Your task to perform on an android device: turn on airplane mode Image 0: 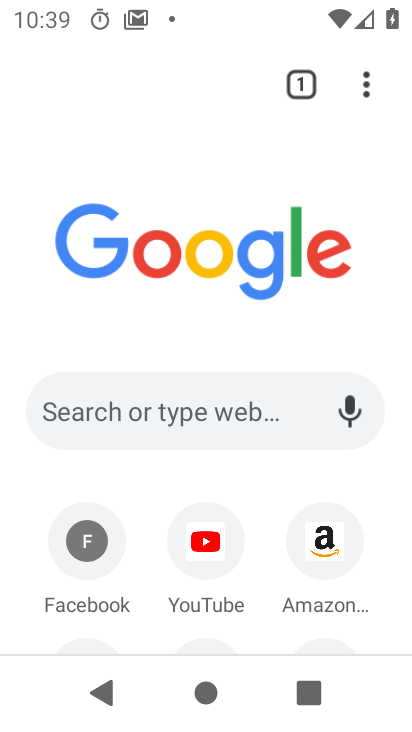
Step 0: press home button
Your task to perform on an android device: turn on airplane mode Image 1: 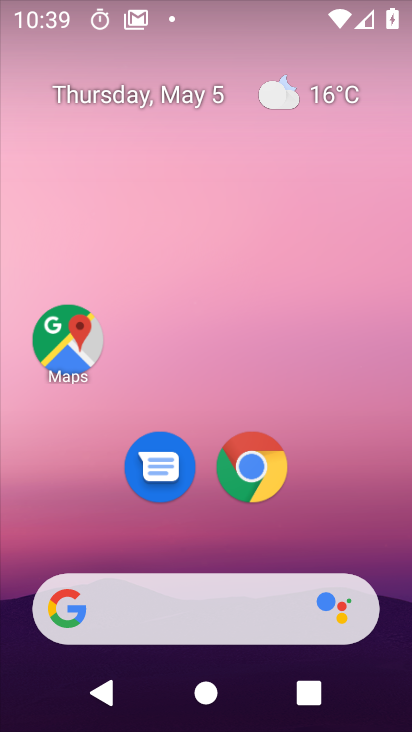
Step 1: drag from (207, 456) to (212, 162)
Your task to perform on an android device: turn on airplane mode Image 2: 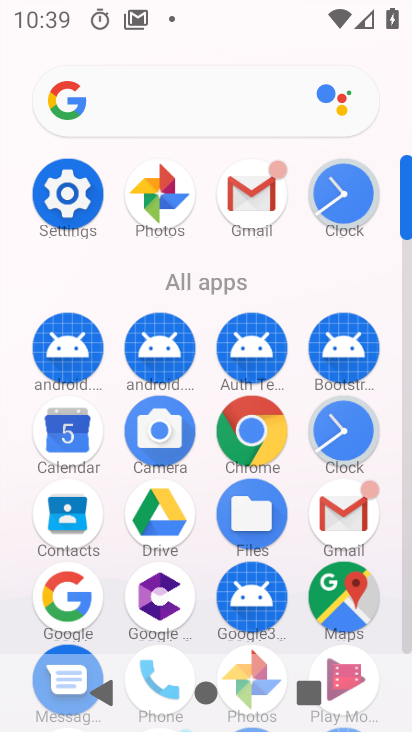
Step 2: click (55, 207)
Your task to perform on an android device: turn on airplane mode Image 3: 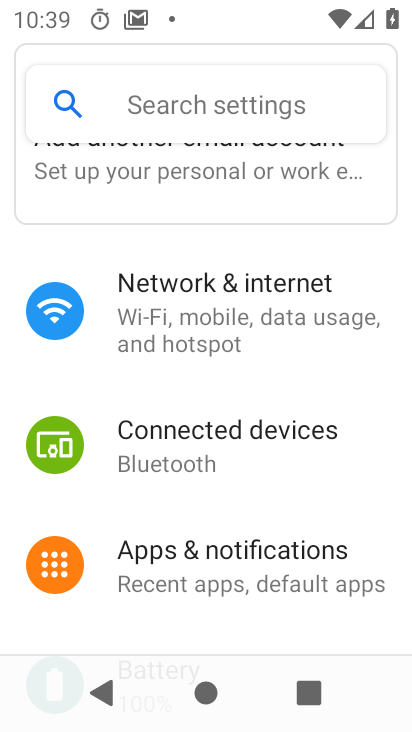
Step 3: click (217, 293)
Your task to perform on an android device: turn on airplane mode Image 4: 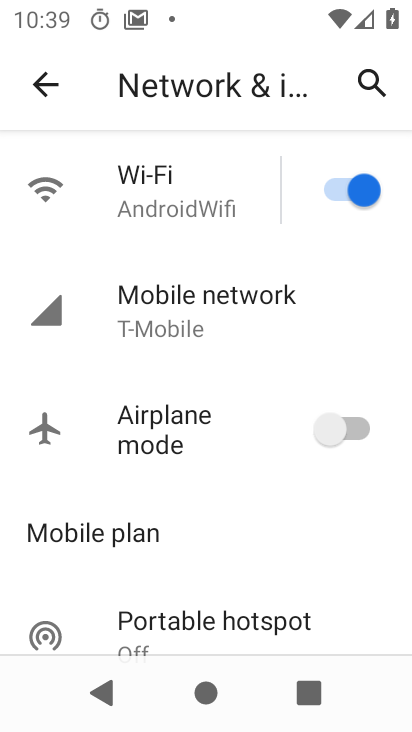
Step 4: click (337, 437)
Your task to perform on an android device: turn on airplane mode Image 5: 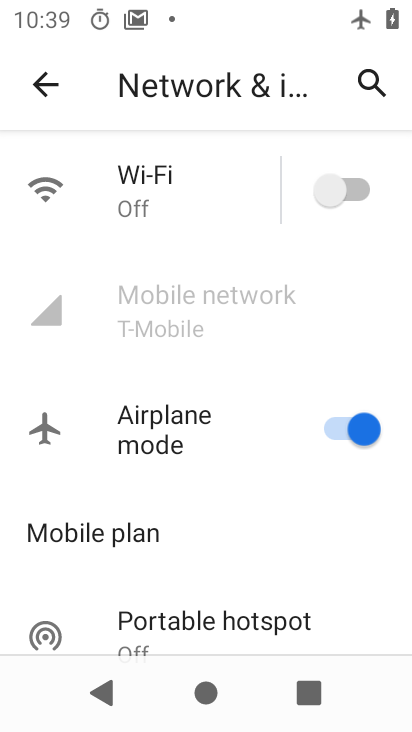
Step 5: task complete